Your task to perform on an android device: turn on wifi Image 0: 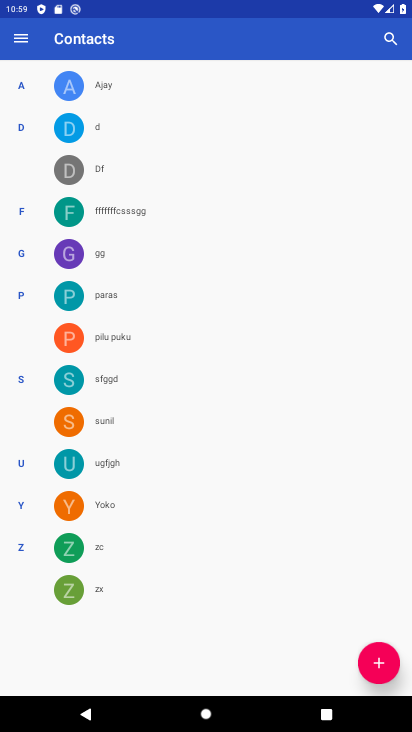
Step 0: press home button
Your task to perform on an android device: turn on wifi Image 1: 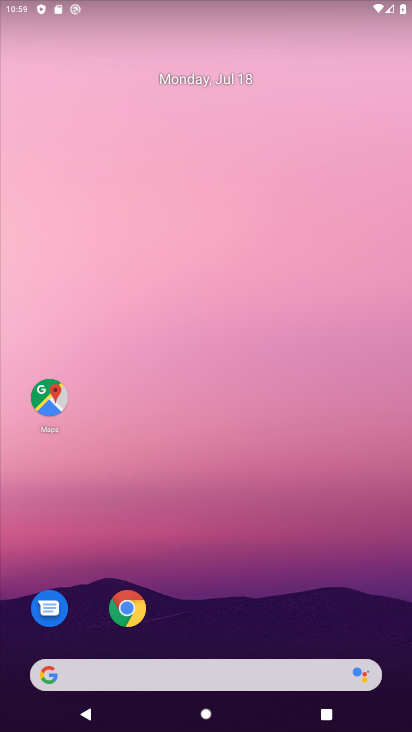
Step 1: drag from (335, 603) to (299, 0)
Your task to perform on an android device: turn on wifi Image 2: 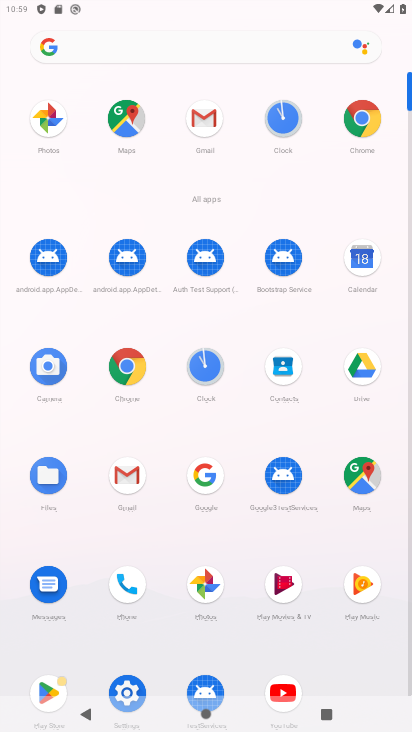
Step 2: click (131, 688)
Your task to perform on an android device: turn on wifi Image 3: 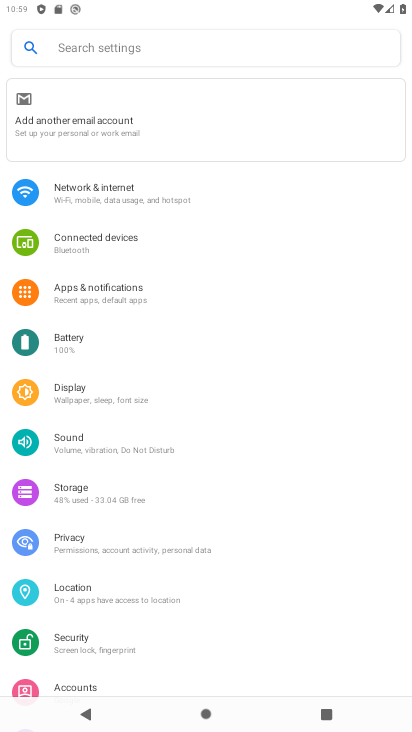
Step 3: click (240, 196)
Your task to perform on an android device: turn on wifi Image 4: 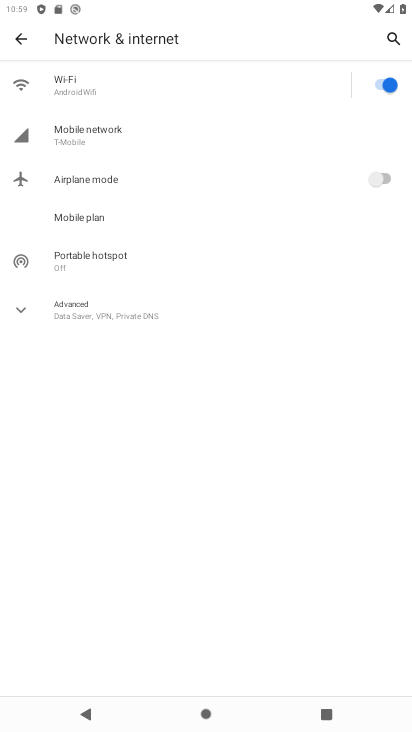
Step 4: task complete